Your task to perform on an android device: delete the emails in spam in the gmail app Image 0: 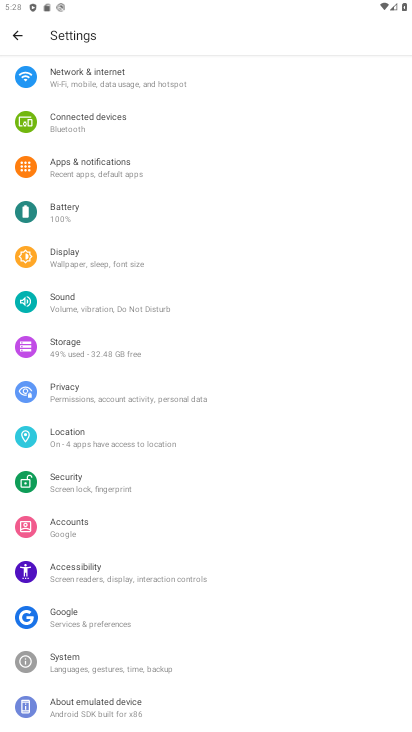
Step 0: press home button
Your task to perform on an android device: delete the emails in spam in the gmail app Image 1: 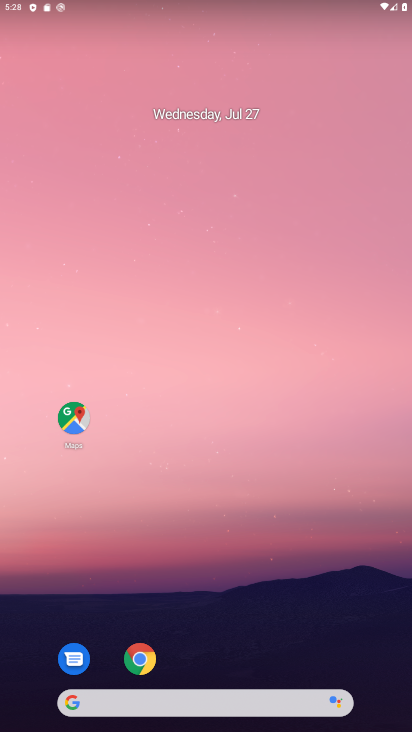
Step 1: drag from (203, 628) to (221, 118)
Your task to perform on an android device: delete the emails in spam in the gmail app Image 2: 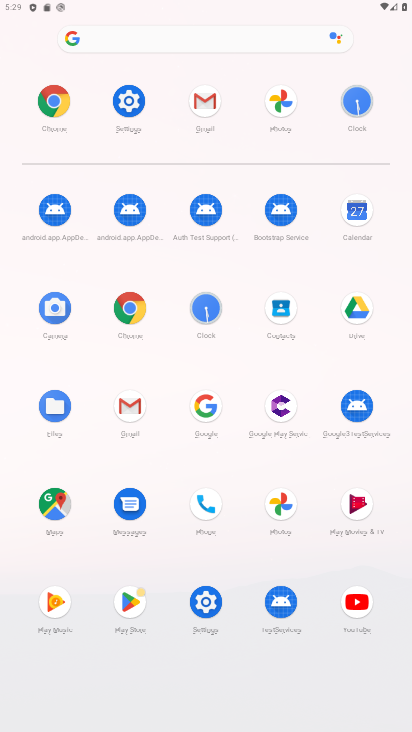
Step 2: click (129, 396)
Your task to perform on an android device: delete the emails in spam in the gmail app Image 3: 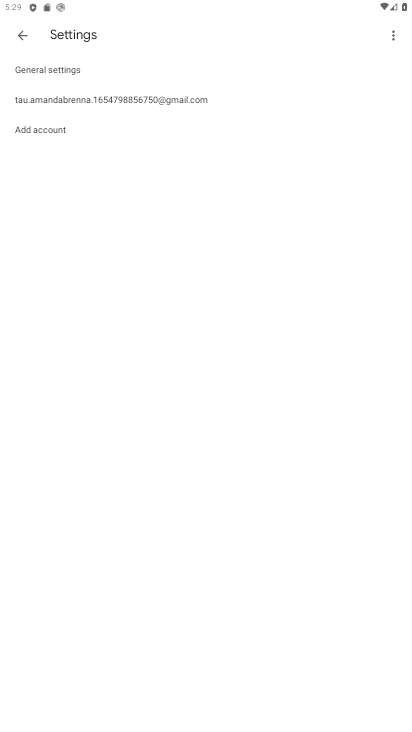
Step 3: click (22, 33)
Your task to perform on an android device: delete the emails in spam in the gmail app Image 4: 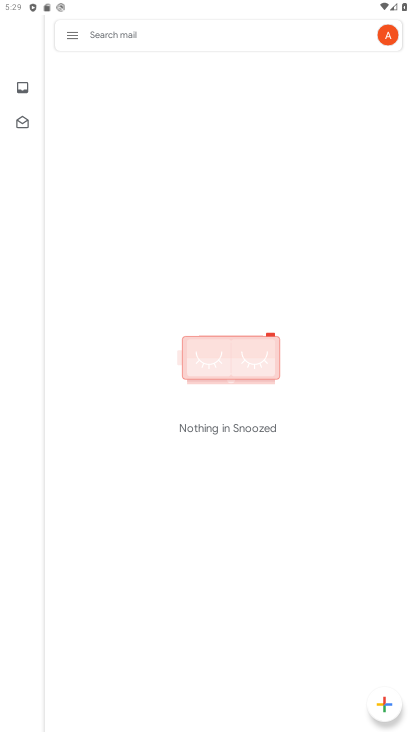
Step 4: click (69, 36)
Your task to perform on an android device: delete the emails in spam in the gmail app Image 5: 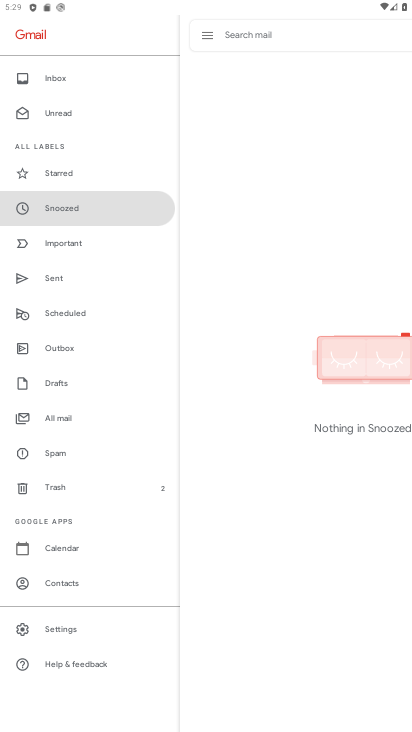
Step 5: click (49, 456)
Your task to perform on an android device: delete the emails in spam in the gmail app Image 6: 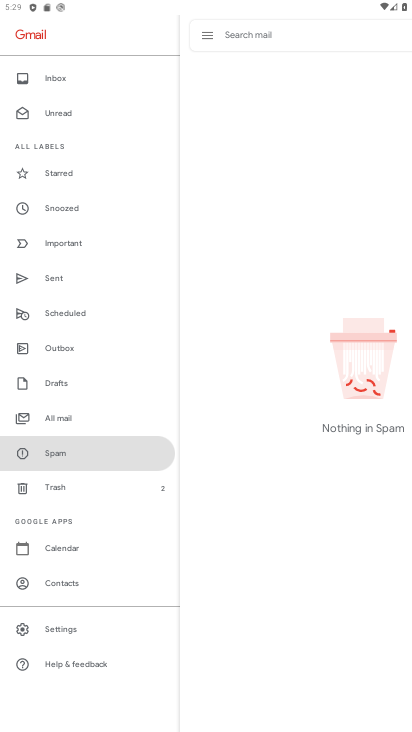
Step 6: task complete